Your task to perform on an android device: check the backup settings in the google photos Image 0: 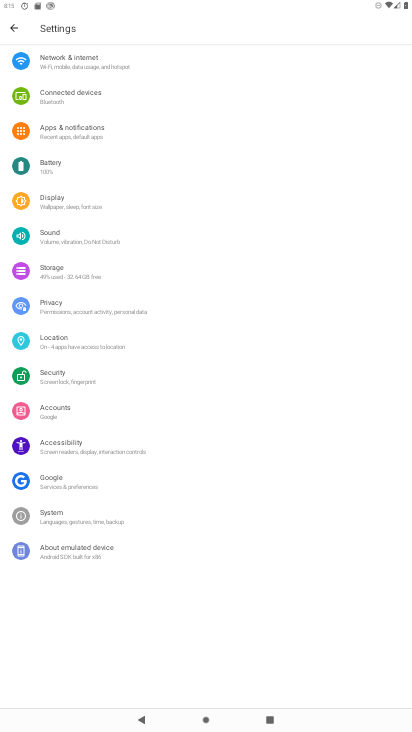
Step 0: press home button
Your task to perform on an android device: check the backup settings in the google photos Image 1: 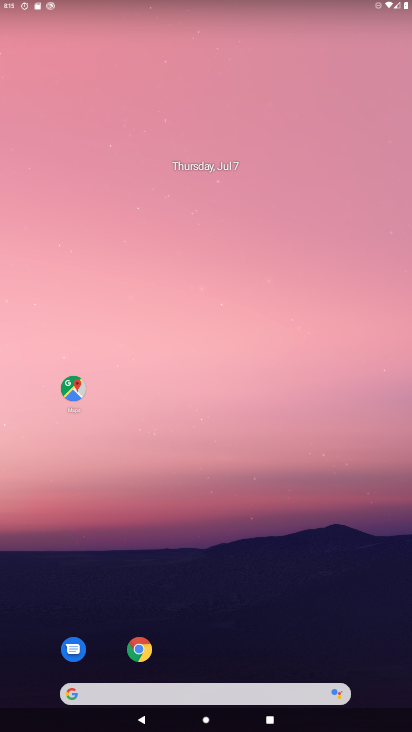
Step 1: drag from (229, 656) to (220, 48)
Your task to perform on an android device: check the backup settings in the google photos Image 2: 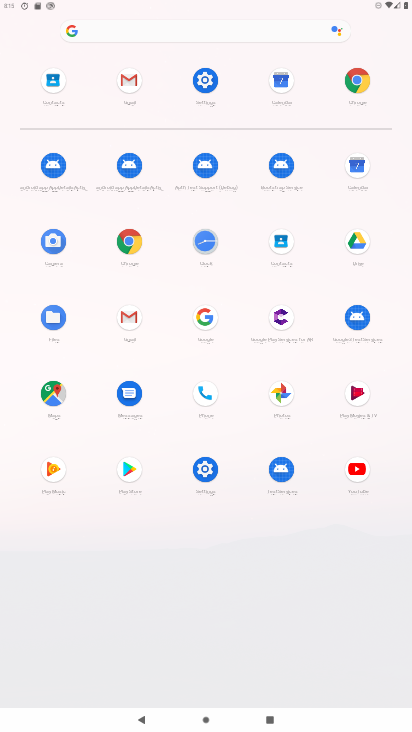
Step 2: click (278, 387)
Your task to perform on an android device: check the backup settings in the google photos Image 3: 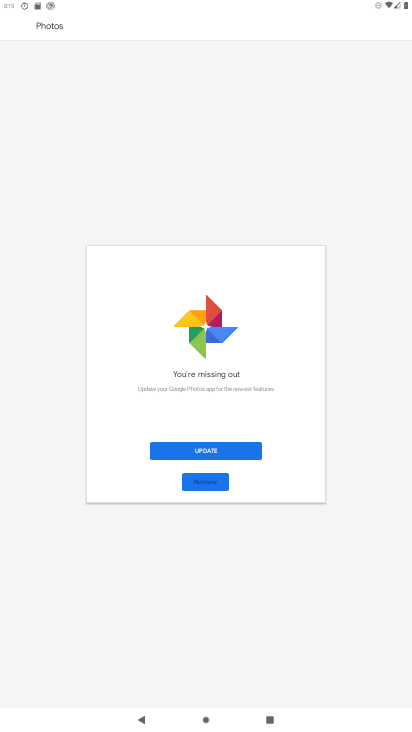
Step 3: click (221, 451)
Your task to perform on an android device: check the backup settings in the google photos Image 4: 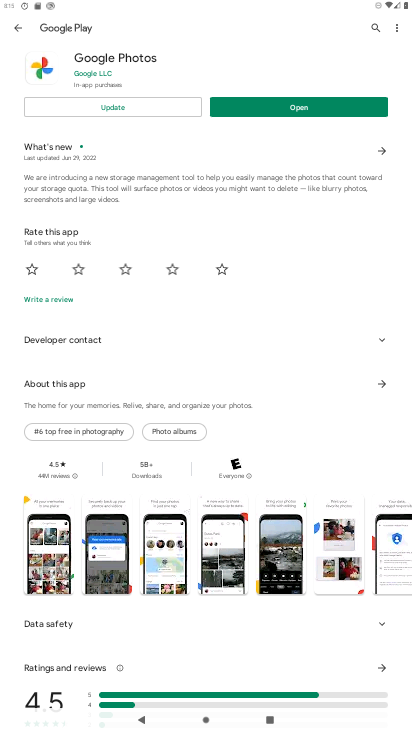
Step 4: click (125, 104)
Your task to perform on an android device: check the backup settings in the google photos Image 5: 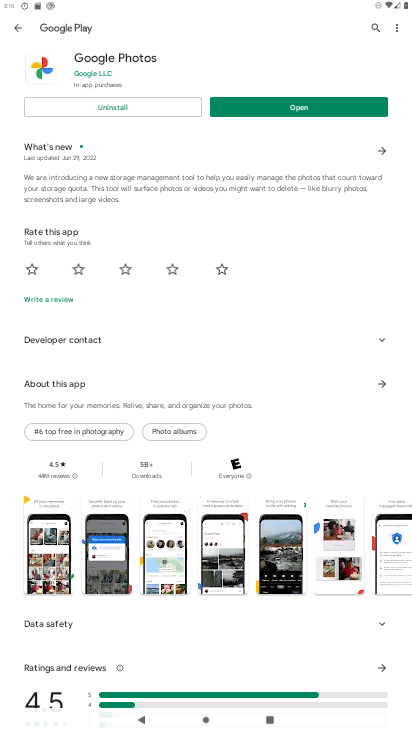
Step 5: click (320, 105)
Your task to perform on an android device: check the backup settings in the google photos Image 6: 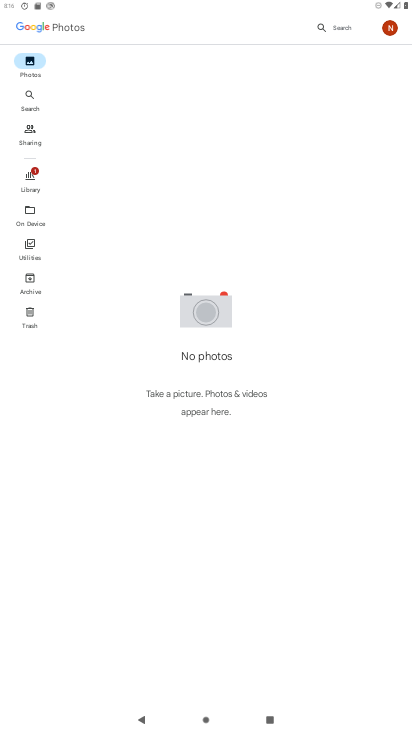
Step 6: click (387, 30)
Your task to perform on an android device: check the backup settings in the google photos Image 7: 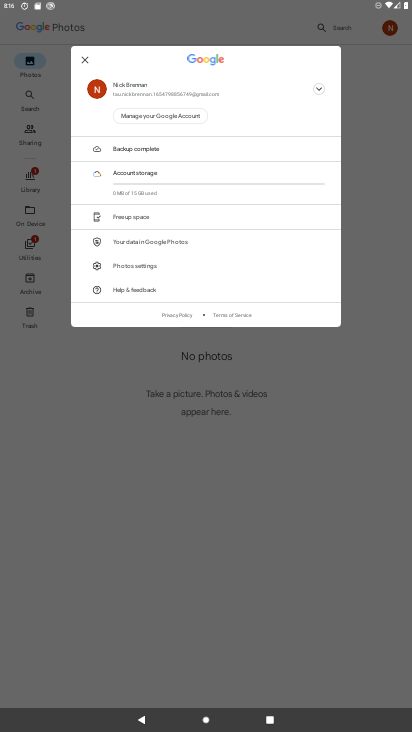
Step 7: click (153, 266)
Your task to perform on an android device: check the backup settings in the google photos Image 8: 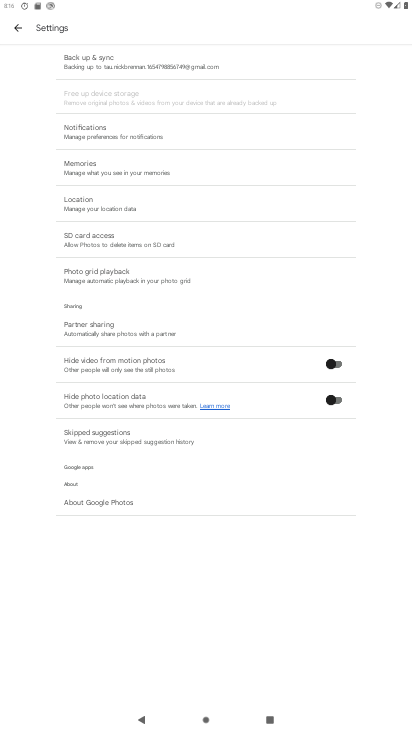
Step 8: click (141, 62)
Your task to perform on an android device: check the backup settings in the google photos Image 9: 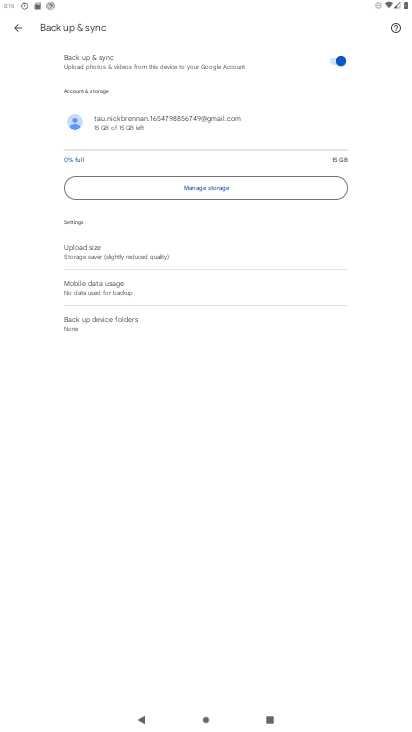
Step 9: task complete